Your task to perform on an android device: change your default location settings in chrome Image 0: 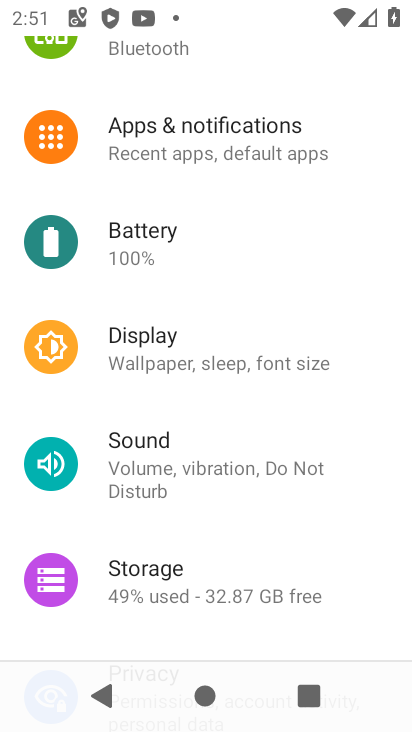
Step 0: press home button
Your task to perform on an android device: change your default location settings in chrome Image 1: 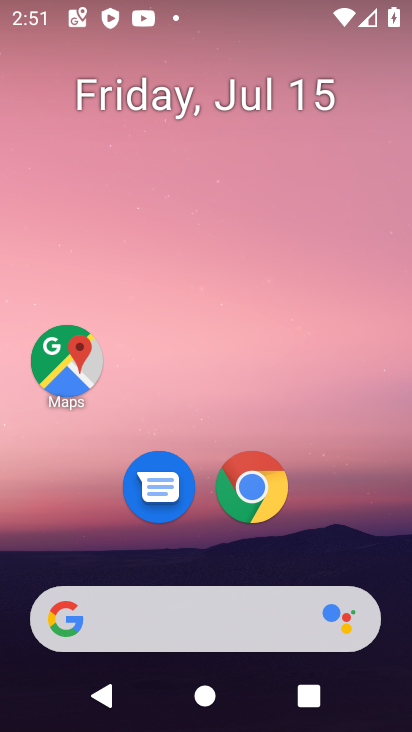
Step 1: drag from (379, 551) to (267, 91)
Your task to perform on an android device: change your default location settings in chrome Image 2: 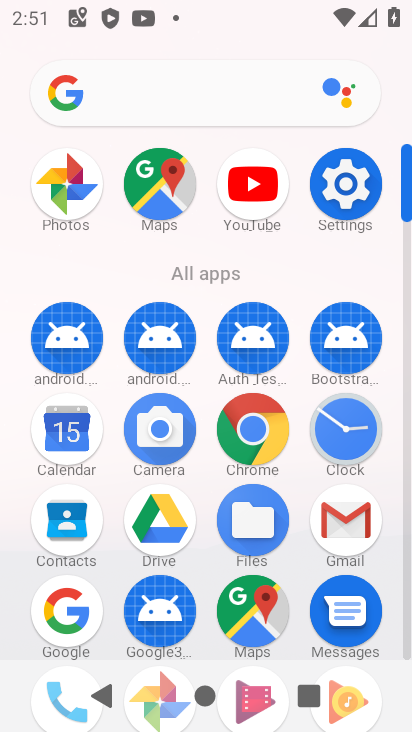
Step 2: click (274, 408)
Your task to perform on an android device: change your default location settings in chrome Image 3: 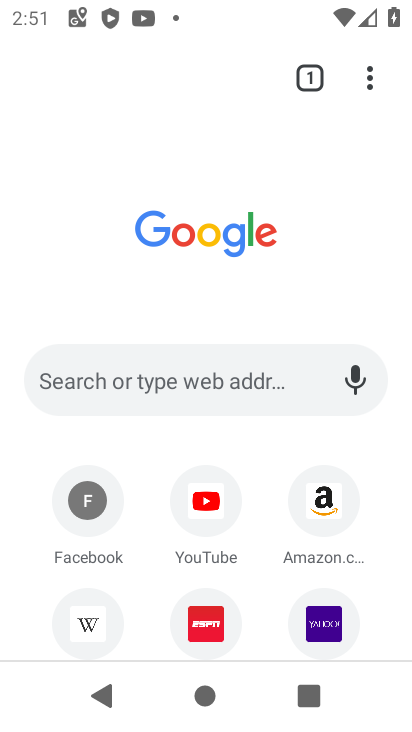
Step 3: click (376, 76)
Your task to perform on an android device: change your default location settings in chrome Image 4: 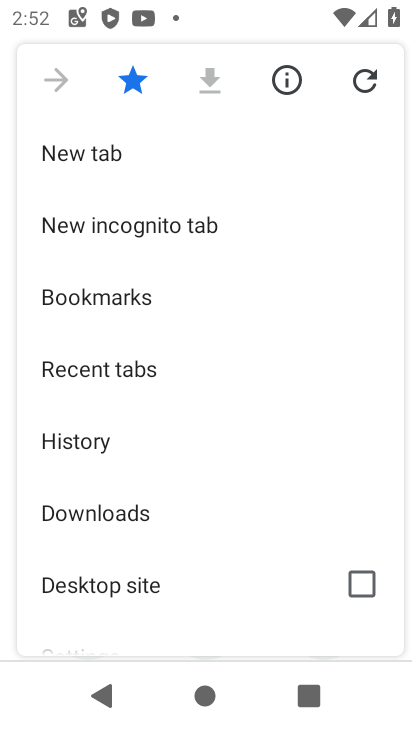
Step 4: drag from (180, 576) to (158, 234)
Your task to perform on an android device: change your default location settings in chrome Image 5: 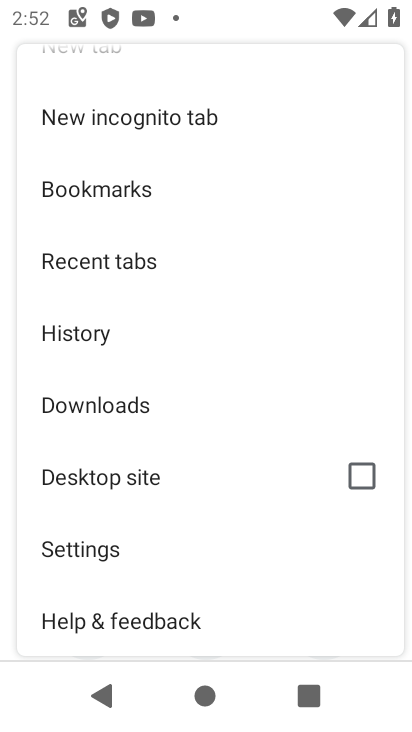
Step 5: click (135, 532)
Your task to perform on an android device: change your default location settings in chrome Image 6: 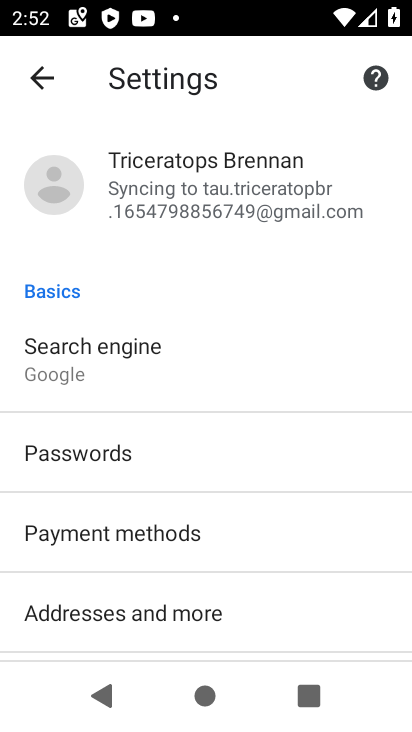
Step 6: drag from (197, 648) to (133, 212)
Your task to perform on an android device: change your default location settings in chrome Image 7: 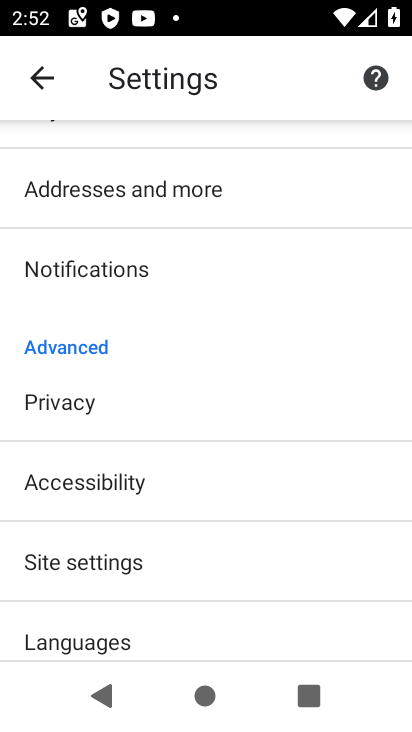
Step 7: click (178, 558)
Your task to perform on an android device: change your default location settings in chrome Image 8: 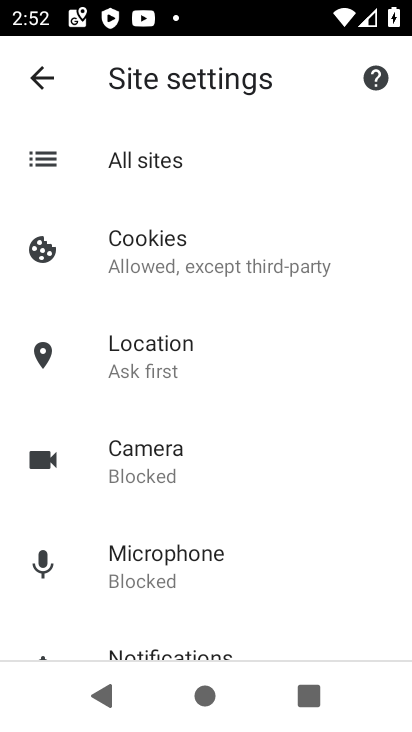
Step 8: click (221, 358)
Your task to perform on an android device: change your default location settings in chrome Image 9: 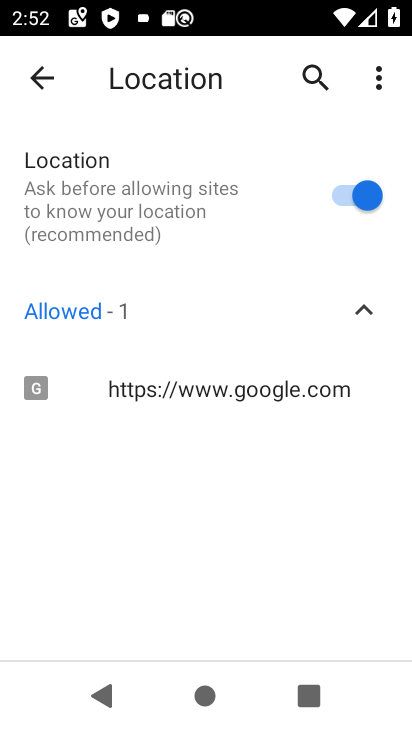
Step 9: task complete